Your task to perform on an android device: see creations saved in the google photos Image 0: 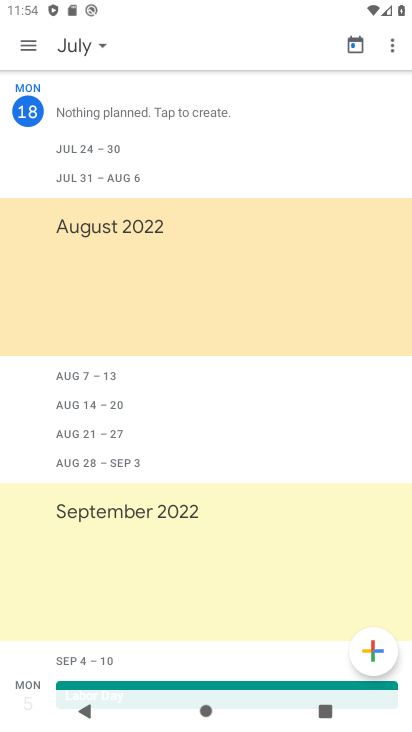
Step 0: press home button
Your task to perform on an android device: see creations saved in the google photos Image 1: 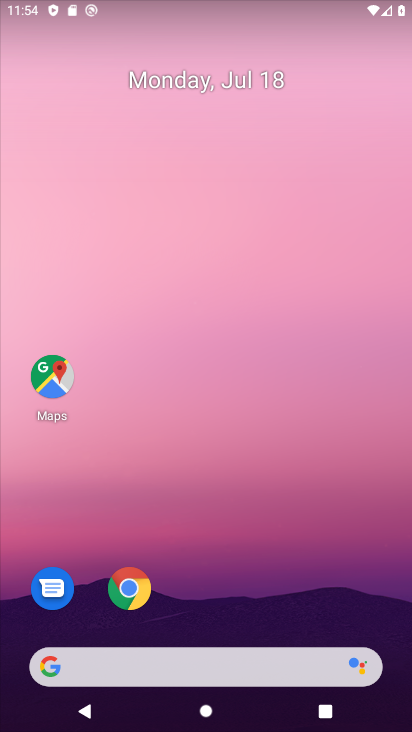
Step 1: drag from (234, 554) to (234, 112)
Your task to perform on an android device: see creations saved in the google photos Image 2: 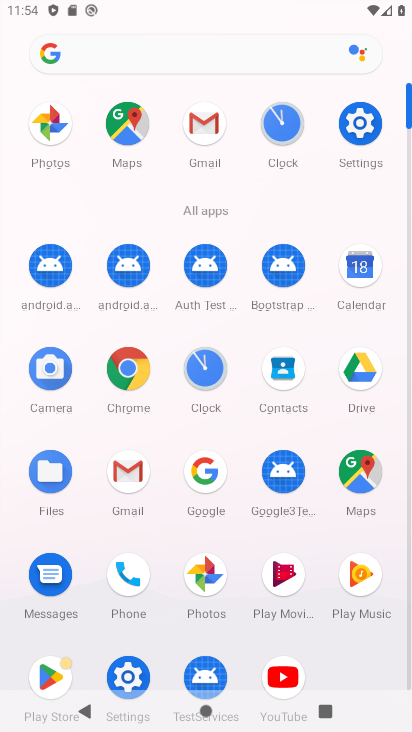
Step 2: click (44, 117)
Your task to perform on an android device: see creations saved in the google photos Image 3: 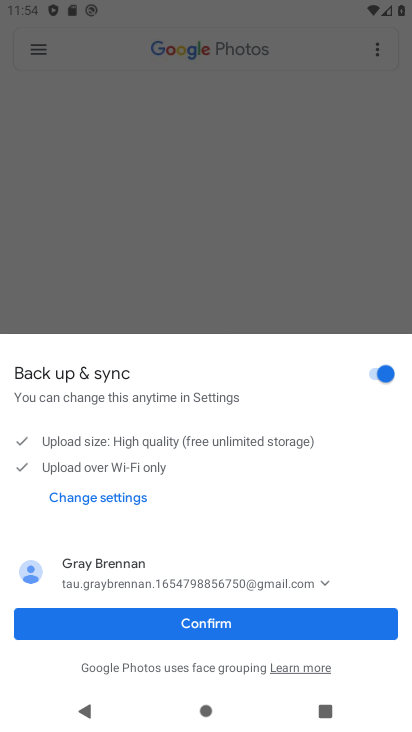
Step 3: click (203, 624)
Your task to perform on an android device: see creations saved in the google photos Image 4: 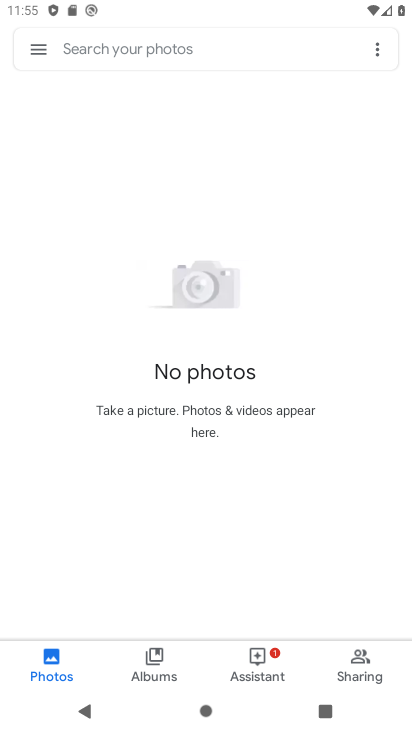
Step 4: click (118, 44)
Your task to perform on an android device: see creations saved in the google photos Image 5: 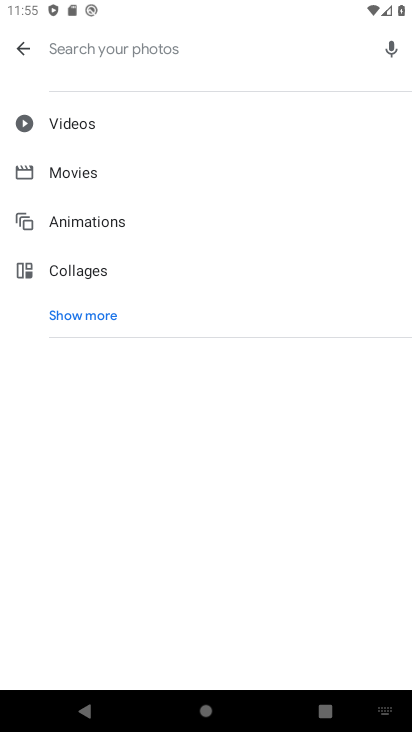
Step 5: click (88, 311)
Your task to perform on an android device: see creations saved in the google photos Image 6: 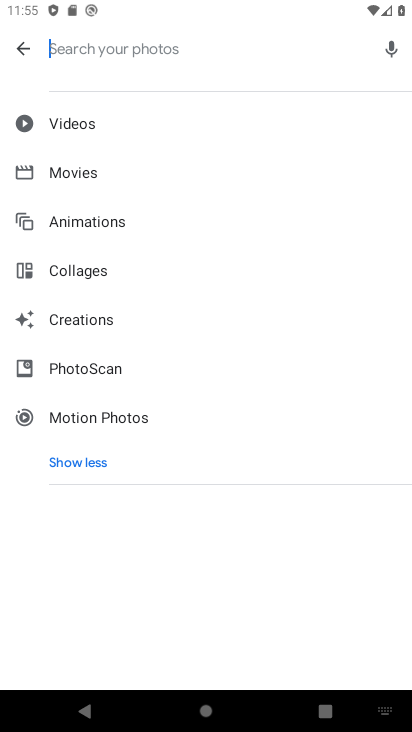
Step 6: click (85, 317)
Your task to perform on an android device: see creations saved in the google photos Image 7: 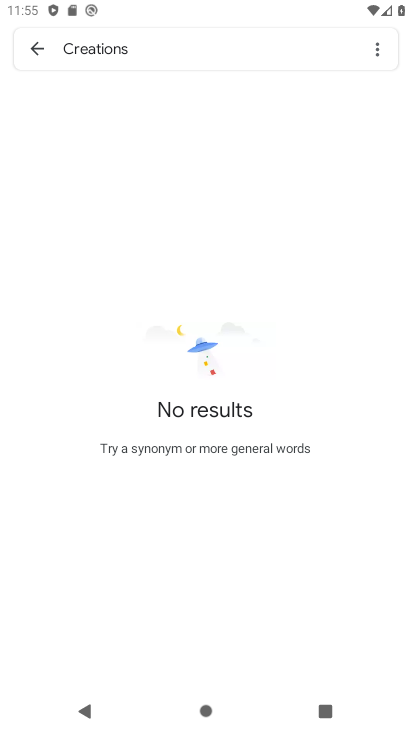
Step 7: task complete